Your task to perform on an android device: Search for vegetarian restaurants on Maps Image 0: 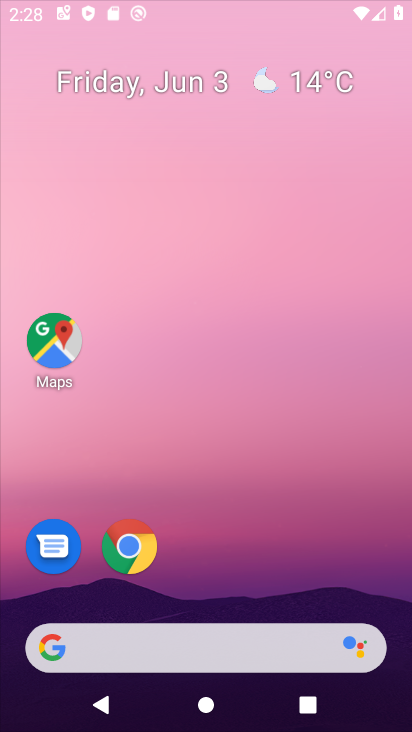
Step 0: drag from (262, 496) to (274, 16)
Your task to perform on an android device: Search for vegetarian restaurants on Maps Image 1: 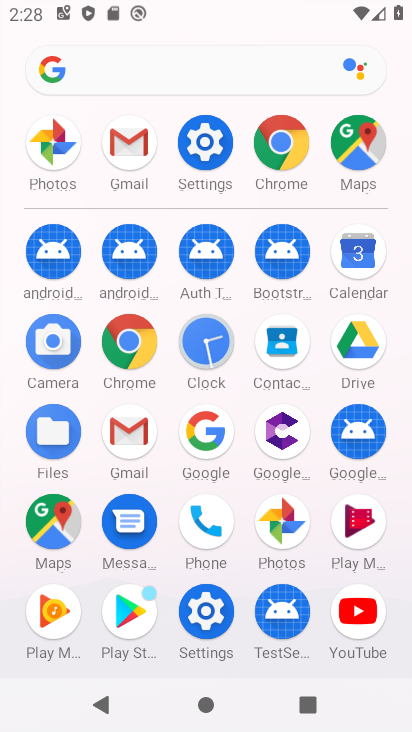
Step 1: click (352, 140)
Your task to perform on an android device: Search for vegetarian restaurants on Maps Image 2: 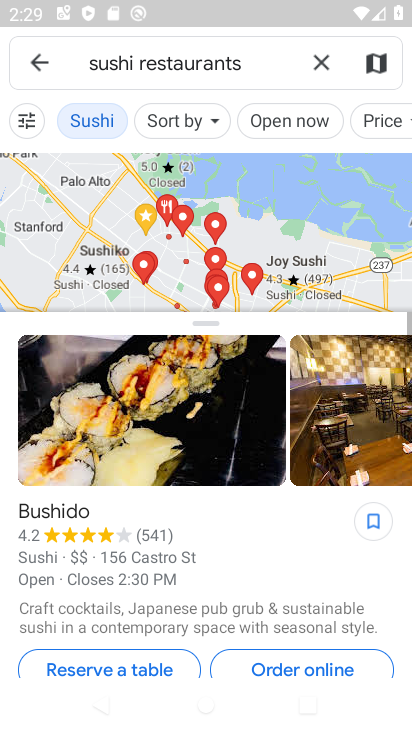
Step 2: click (322, 58)
Your task to perform on an android device: Search for vegetarian restaurants on Maps Image 3: 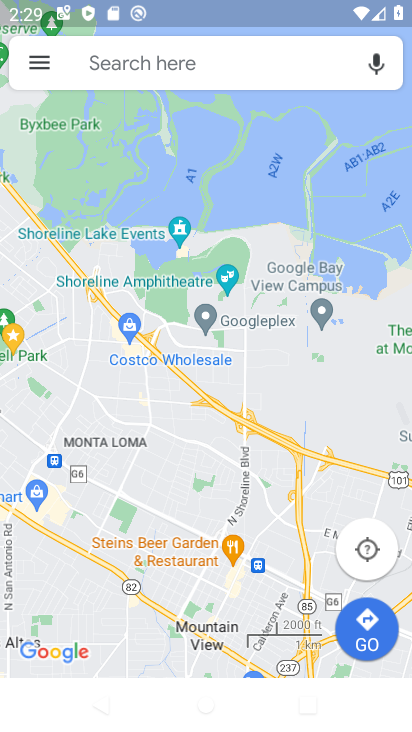
Step 3: click (187, 82)
Your task to perform on an android device: Search for vegetarian restaurants on Maps Image 4: 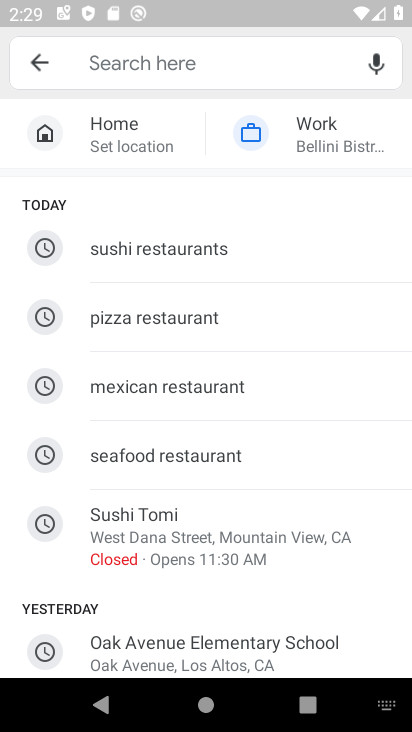
Step 4: drag from (231, 479) to (224, 203)
Your task to perform on an android device: Search for vegetarian restaurants on Maps Image 5: 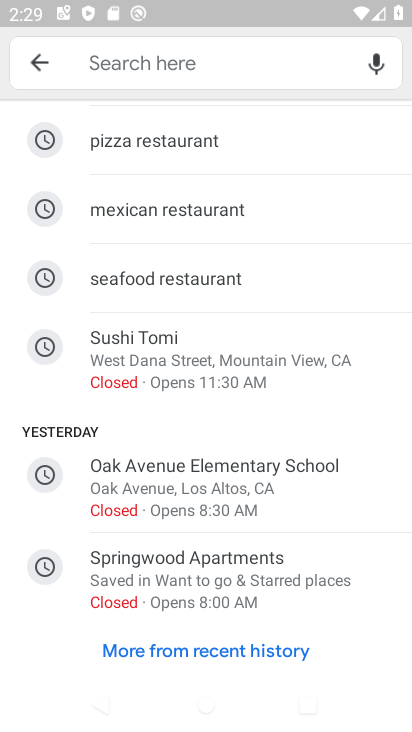
Step 5: click (153, 639)
Your task to perform on an android device: Search for vegetarian restaurants on Maps Image 6: 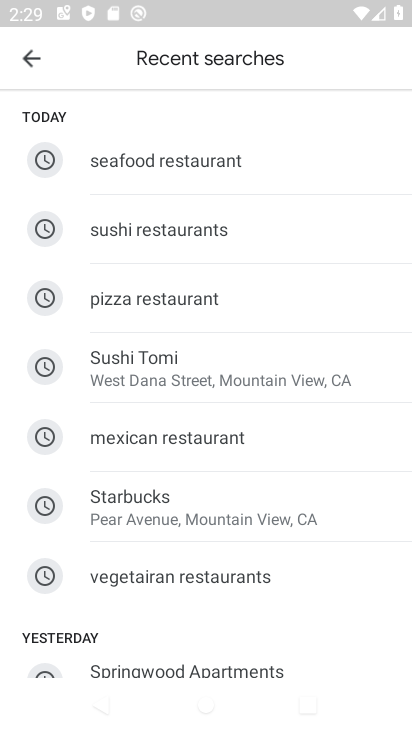
Step 6: drag from (153, 636) to (164, 311)
Your task to perform on an android device: Search for vegetarian restaurants on Maps Image 7: 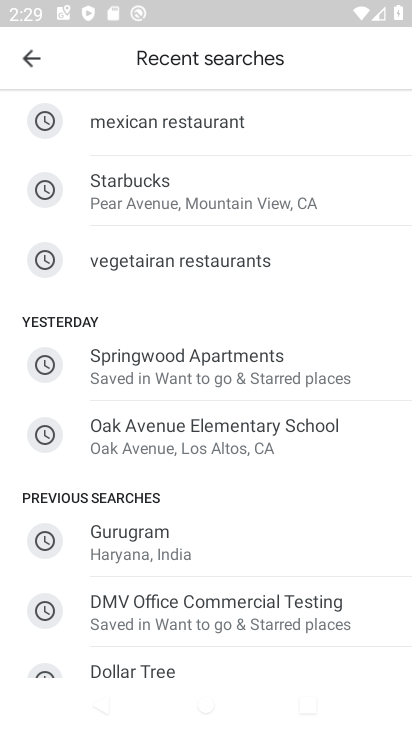
Step 7: click (155, 266)
Your task to perform on an android device: Search for vegetarian restaurants on Maps Image 8: 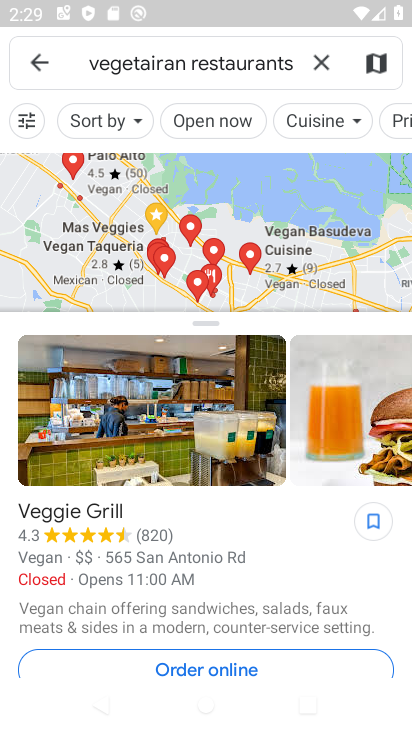
Step 8: task complete